Your task to perform on an android device: Open internet settings Image 0: 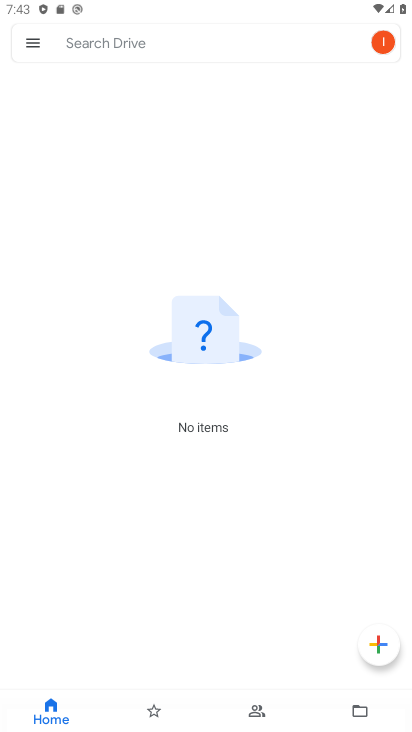
Step 0: press home button
Your task to perform on an android device: Open internet settings Image 1: 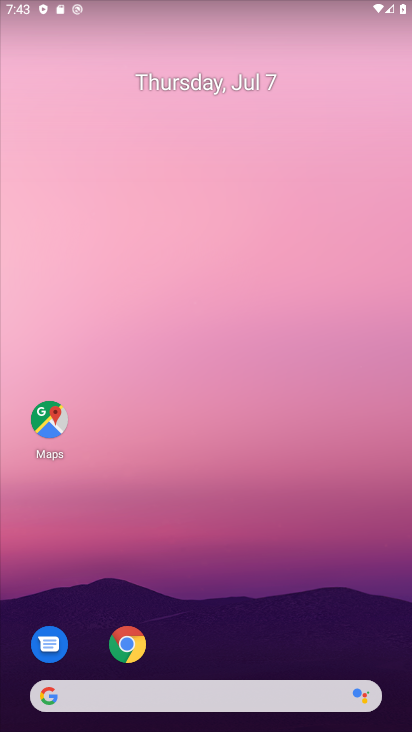
Step 1: drag from (228, 494) to (94, 32)
Your task to perform on an android device: Open internet settings Image 2: 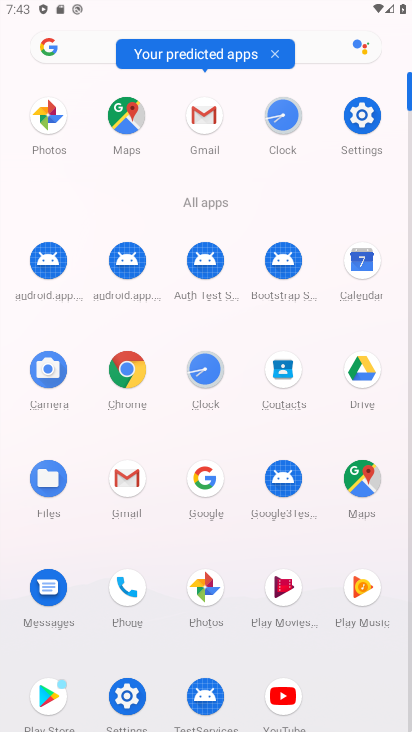
Step 2: click (362, 117)
Your task to perform on an android device: Open internet settings Image 3: 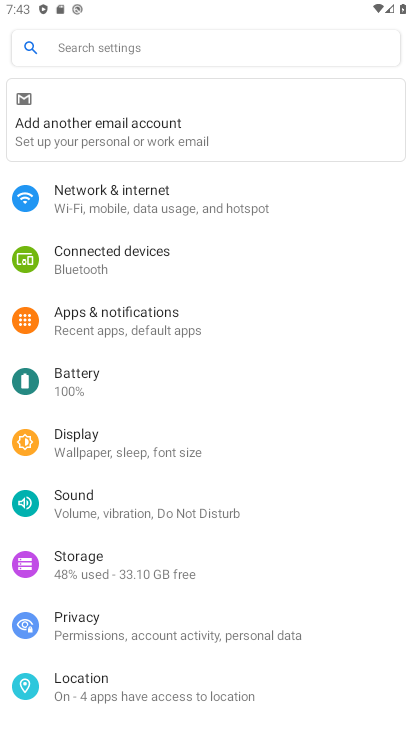
Step 3: drag from (158, 317) to (66, 545)
Your task to perform on an android device: Open internet settings Image 4: 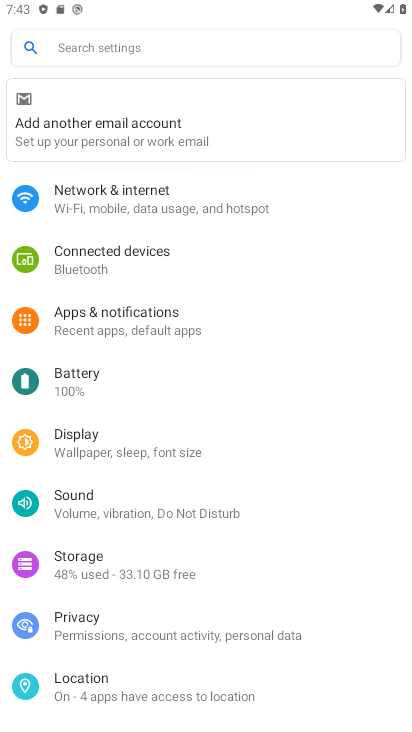
Step 4: click (238, 191)
Your task to perform on an android device: Open internet settings Image 5: 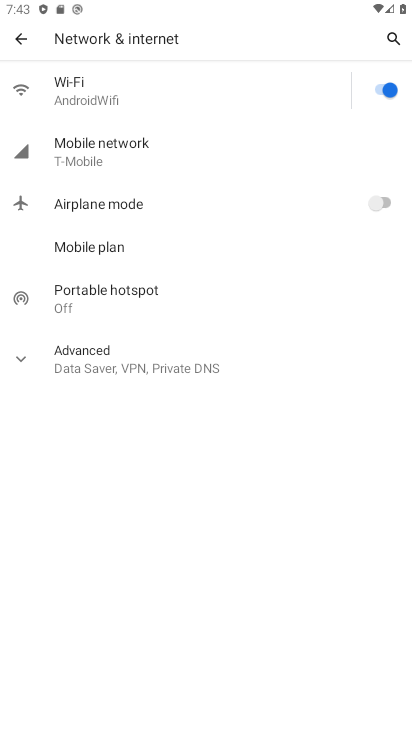
Step 5: click (186, 156)
Your task to perform on an android device: Open internet settings Image 6: 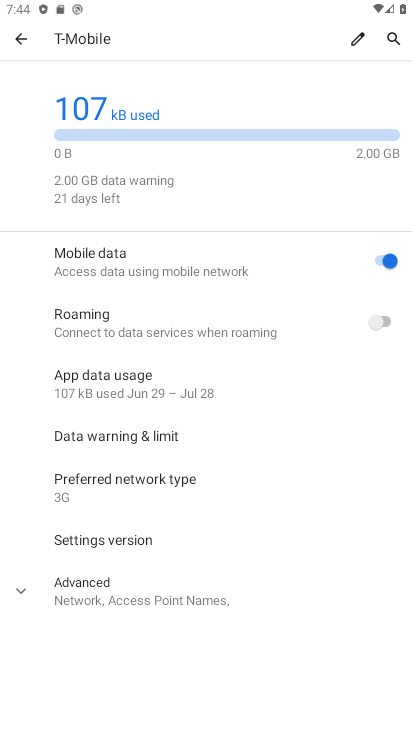
Step 6: task complete